Your task to perform on an android device: visit the assistant section in the google photos Image 0: 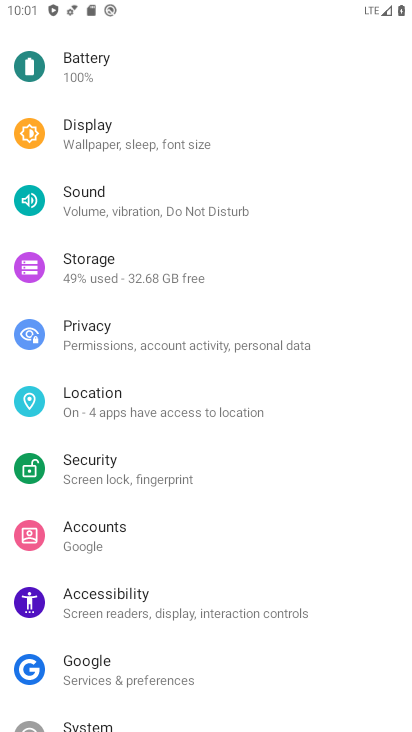
Step 0: press home button
Your task to perform on an android device: visit the assistant section in the google photos Image 1: 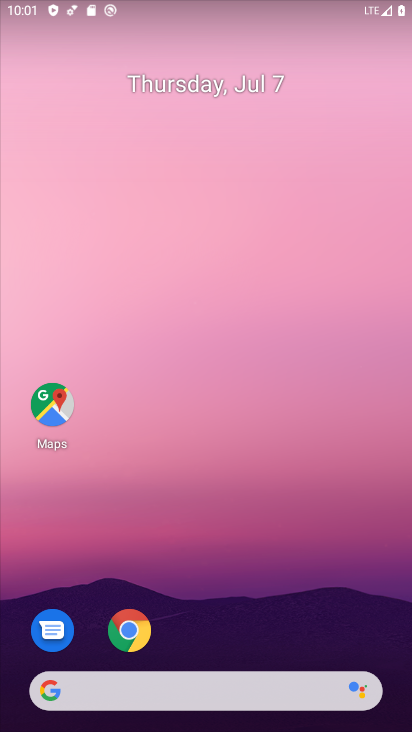
Step 1: drag from (223, 647) to (275, 142)
Your task to perform on an android device: visit the assistant section in the google photos Image 2: 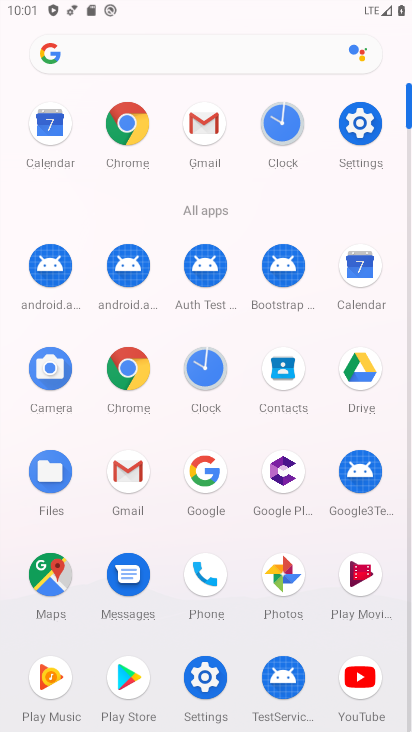
Step 2: click (281, 558)
Your task to perform on an android device: visit the assistant section in the google photos Image 3: 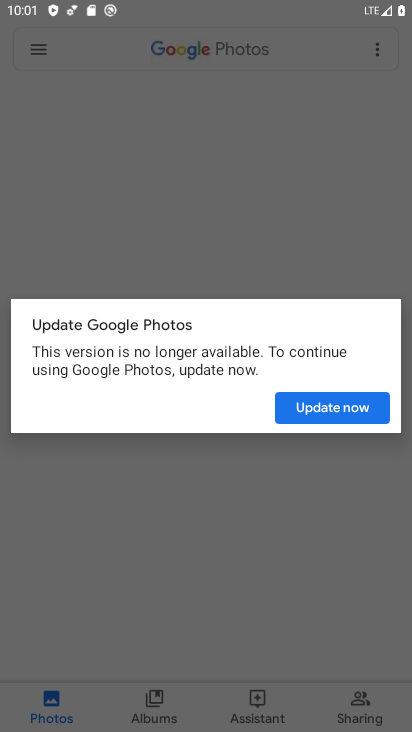
Step 3: click (352, 414)
Your task to perform on an android device: visit the assistant section in the google photos Image 4: 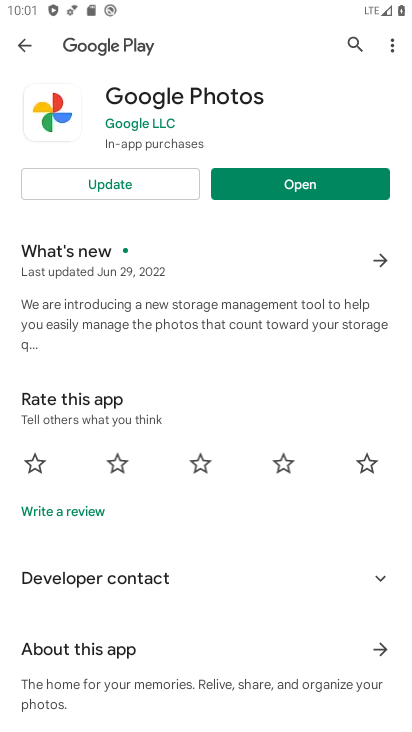
Step 4: click (107, 188)
Your task to perform on an android device: visit the assistant section in the google photos Image 5: 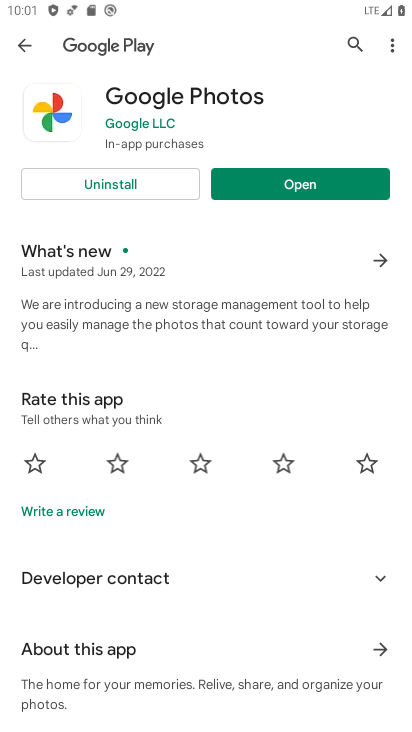
Step 5: click (291, 185)
Your task to perform on an android device: visit the assistant section in the google photos Image 6: 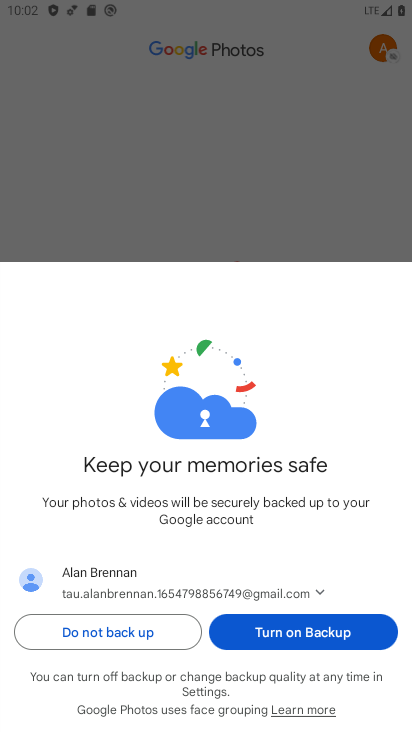
Step 6: click (282, 629)
Your task to perform on an android device: visit the assistant section in the google photos Image 7: 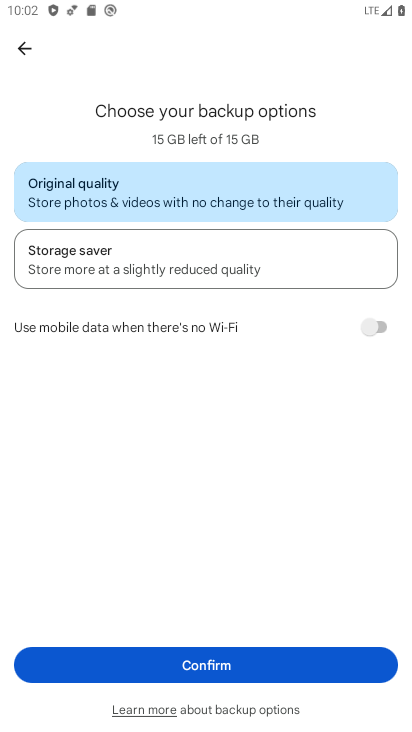
Step 7: click (213, 665)
Your task to perform on an android device: visit the assistant section in the google photos Image 8: 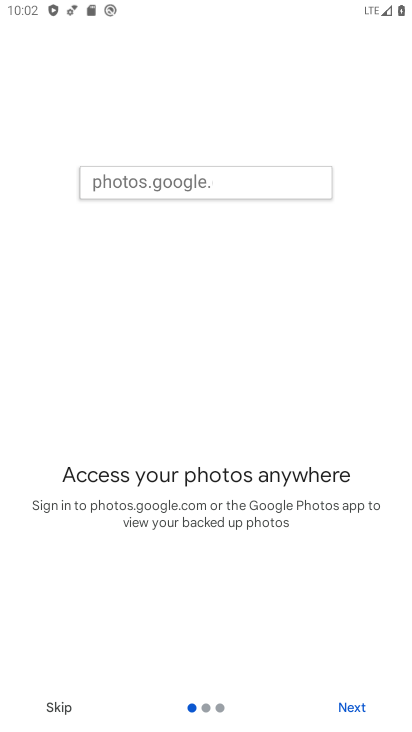
Step 8: click (339, 703)
Your task to perform on an android device: visit the assistant section in the google photos Image 9: 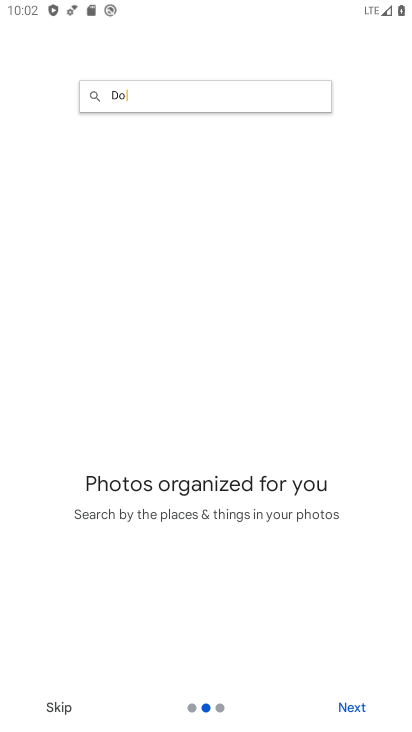
Step 9: click (348, 704)
Your task to perform on an android device: visit the assistant section in the google photos Image 10: 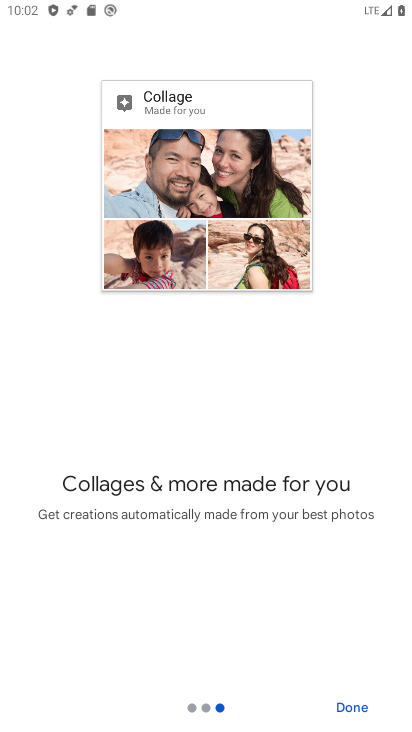
Step 10: click (338, 706)
Your task to perform on an android device: visit the assistant section in the google photos Image 11: 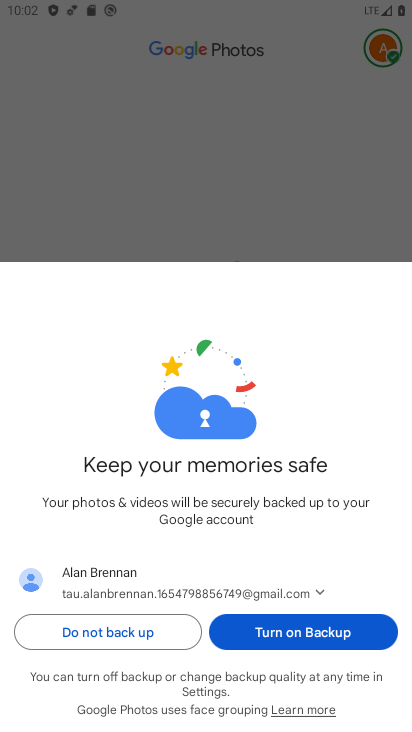
Step 11: click (301, 630)
Your task to perform on an android device: visit the assistant section in the google photos Image 12: 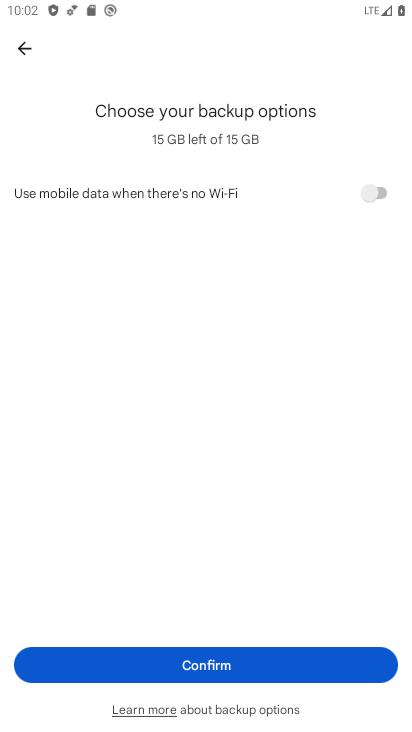
Step 12: click (200, 672)
Your task to perform on an android device: visit the assistant section in the google photos Image 13: 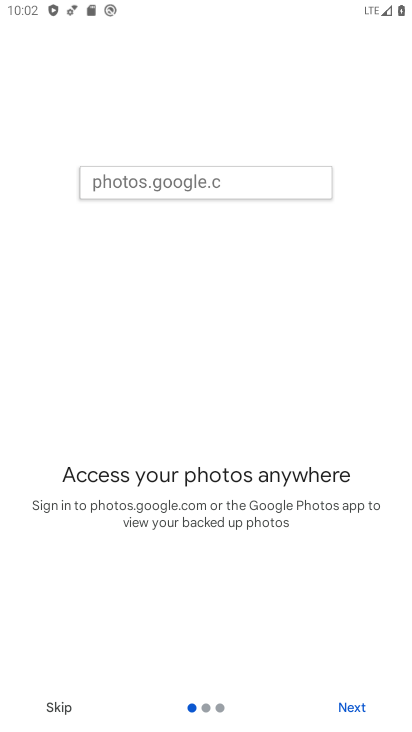
Step 13: click (60, 706)
Your task to perform on an android device: visit the assistant section in the google photos Image 14: 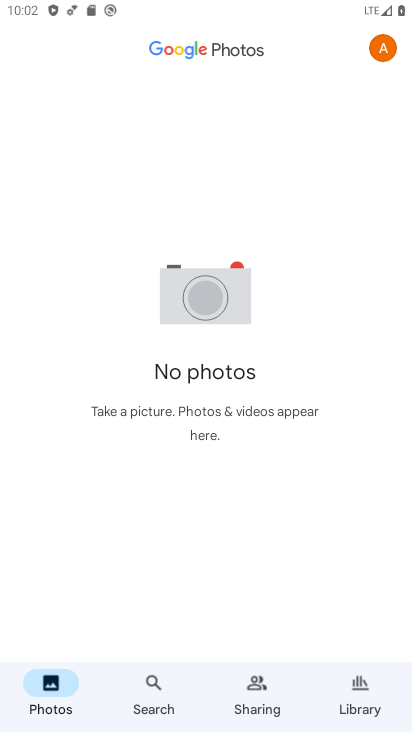
Step 14: click (359, 699)
Your task to perform on an android device: visit the assistant section in the google photos Image 15: 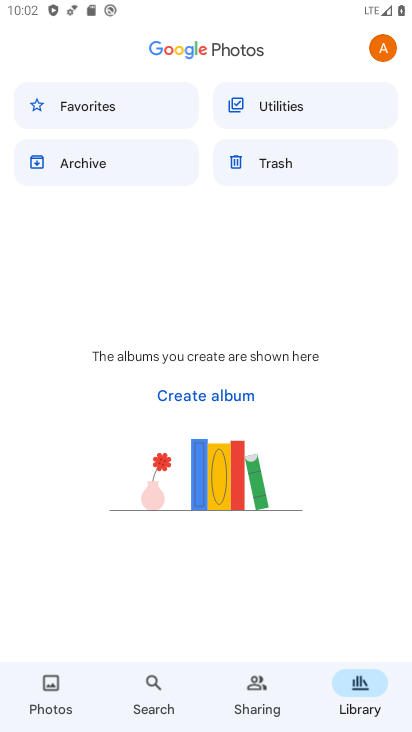
Step 15: click (153, 690)
Your task to perform on an android device: visit the assistant section in the google photos Image 16: 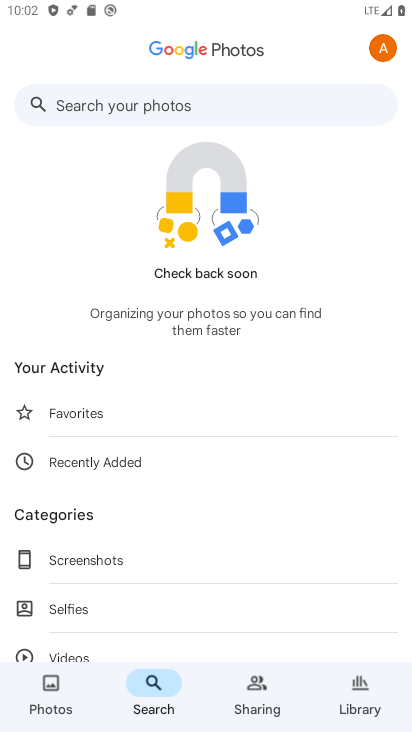
Step 16: click (94, 109)
Your task to perform on an android device: visit the assistant section in the google photos Image 17: 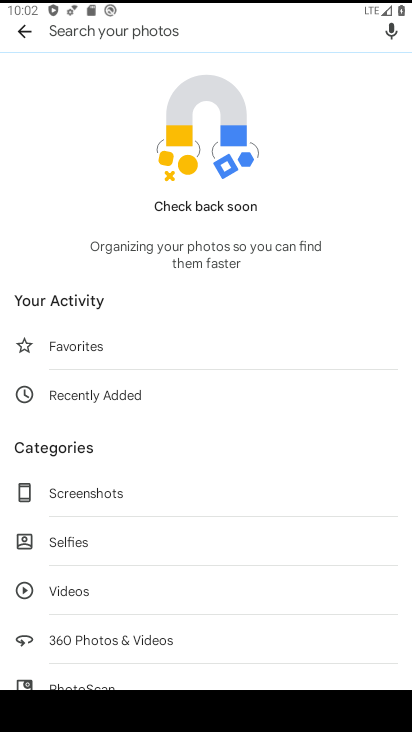
Step 17: type "assistant"
Your task to perform on an android device: visit the assistant section in the google photos Image 18: 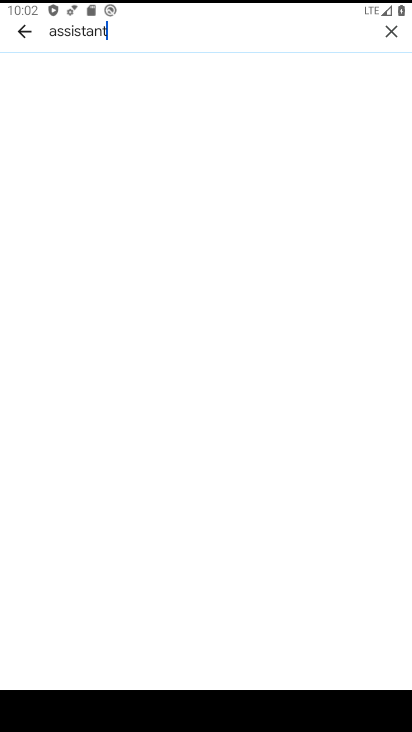
Step 18: type ""
Your task to perform on an android device: visit the assistant section in the google photos Image 19: 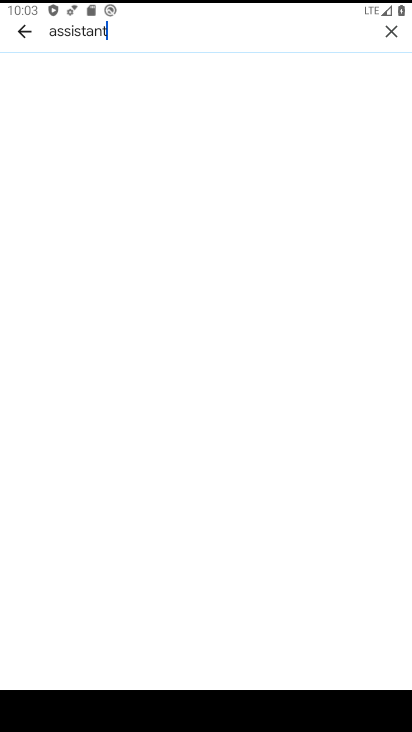
Step 19: task complete